Your task to perform on an android device: see sites visited before in the chrome app Image 0: 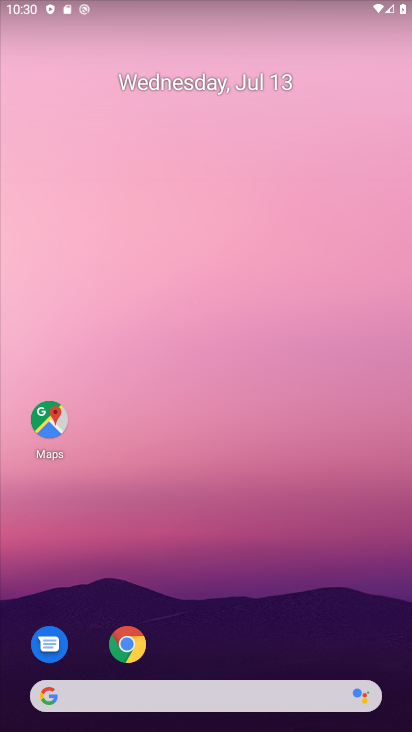
Step 0: click (125, 643)
Your task to perform on an android device: see sites visited before in the chrome app Image 1: 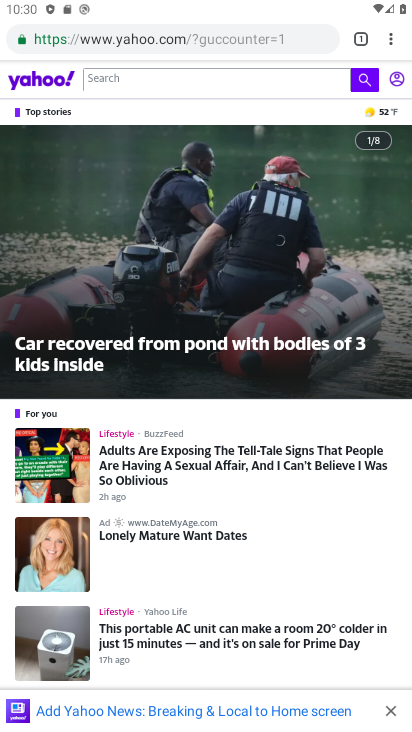
Step 1: click (394, 37)
Your task to perform on an android device: see sites visited before in the chrome app Image 2: 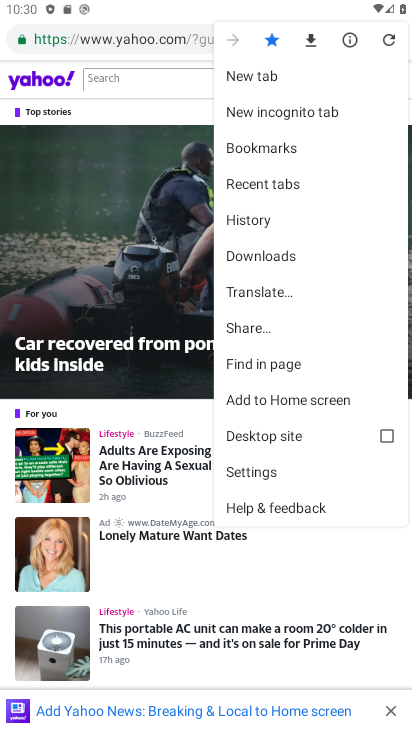
Step 2: click (255, 221)
Your task to perform on an android device: see sites visited before in the chrome app Image 3: 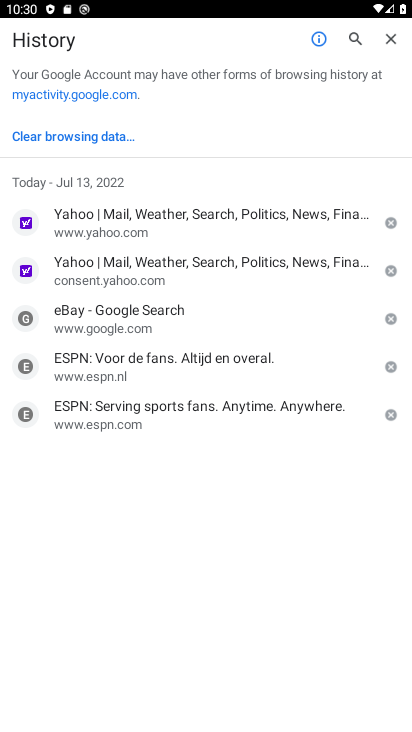
Step 3: task complete